Your task to perform on an android device: Open settings Image 0: 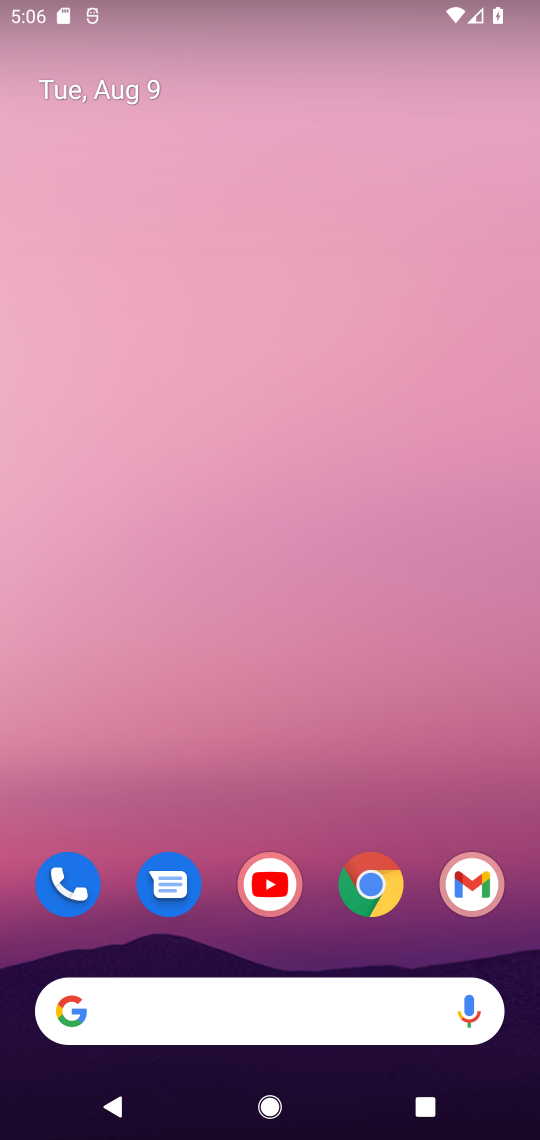
Step 0: drag from (240, 994) to (210, 145)
Your task to perform on an android device: Open settings Image 1: 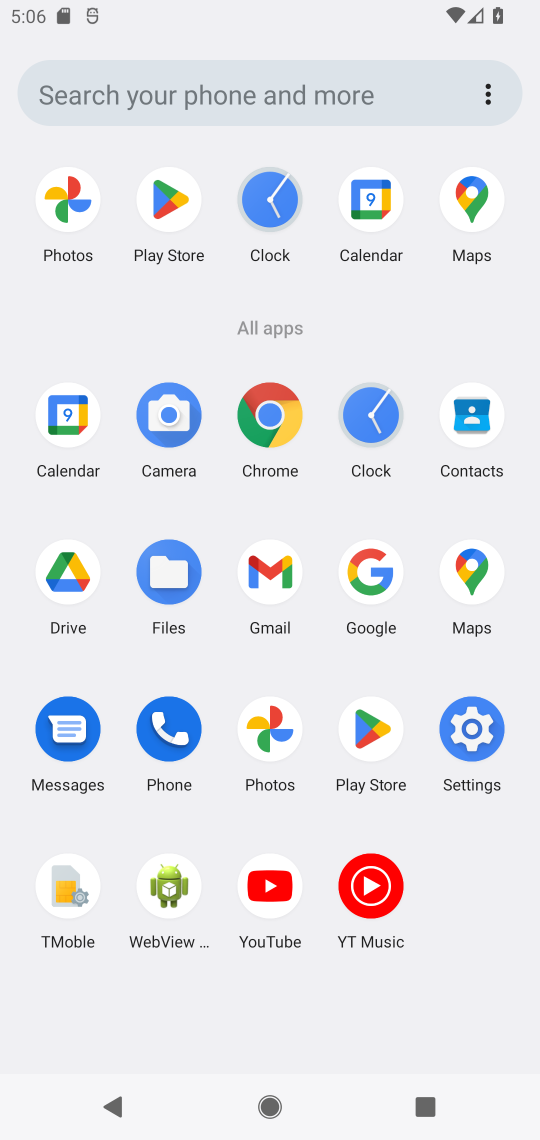
Step 1: click (470, 729)
Your task to perform on an android device: Open settings Image 2: 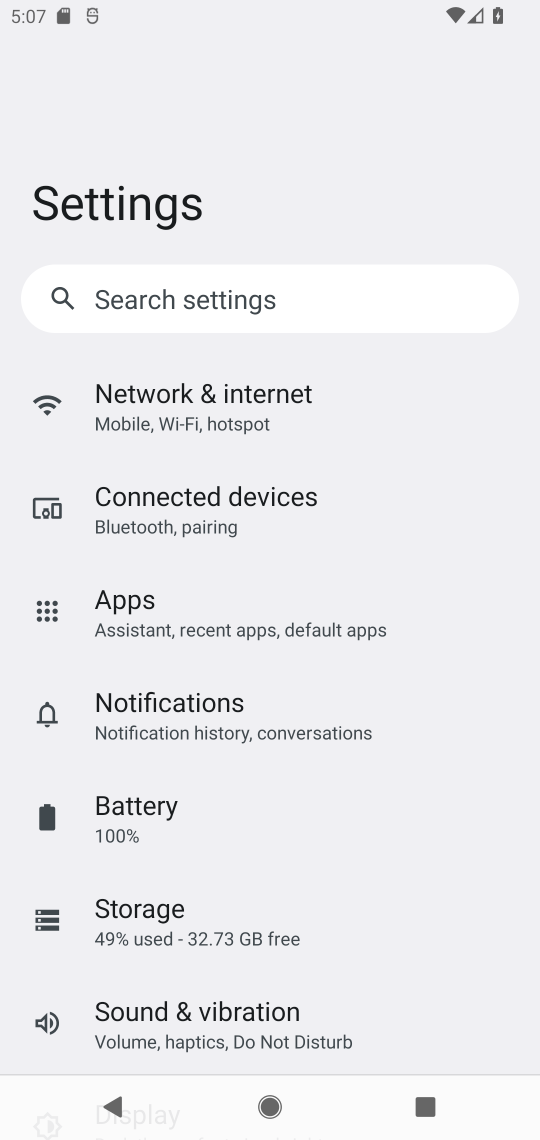
Step 2: task complete